Your task to perform on an android device: Go to battery settings Image 0: 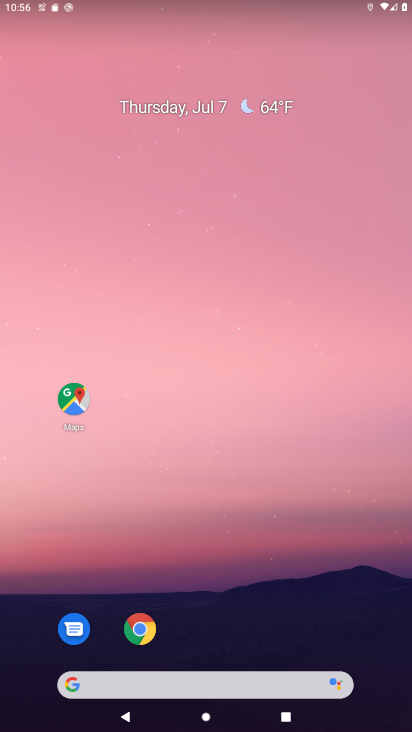
Step 0: drag from (232, 652) to (253, 54)
Your task to perform on an android device: Go to battery settings Image 1: 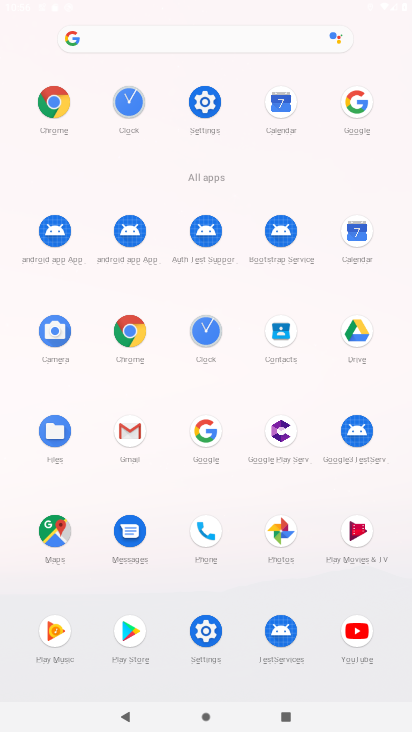
Step 1: click (203, 104)
Your task to perform on an android device: Go to battery settings Image 2: 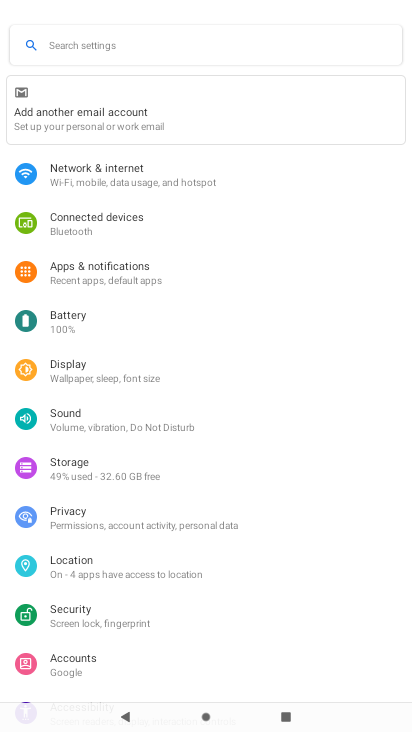
Step 2: click (73, 317)
Your task to perform on an android device: Go to battery settings Image 3: 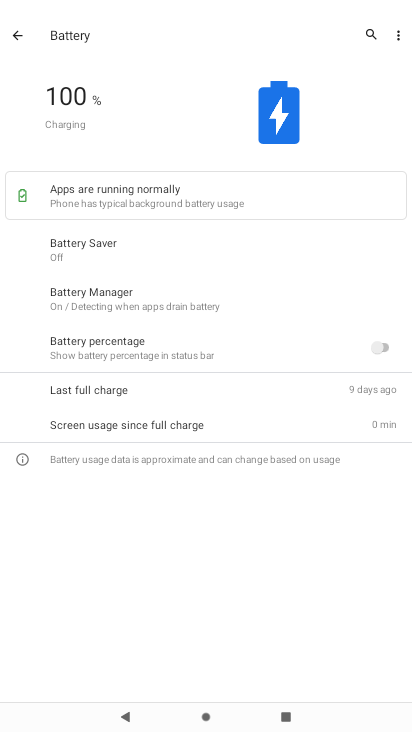
Step 3: task complete